Your task to perform on an android device: Open Youtube and go to the subscriptions tab Image 0: 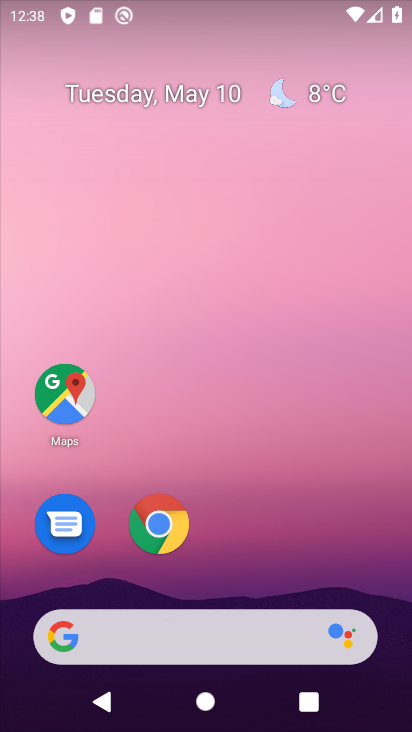
Step 0: drag from (279, 518) to (255, 0)
Your task to perform on an android device: Open Youtube and go to the subscriptions tab Image 1: 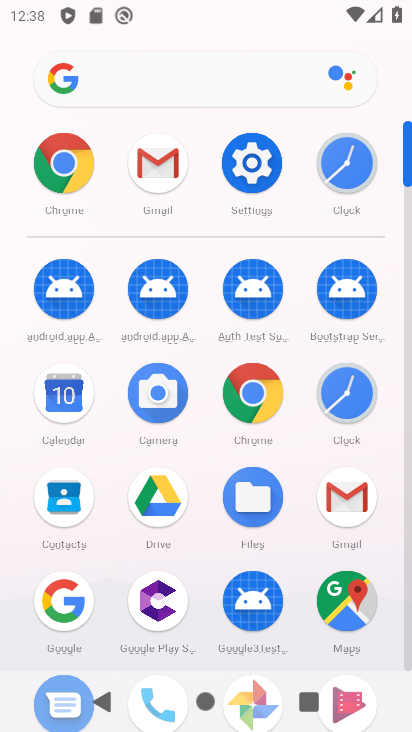
Step 1: drag from (299, 464) to (283, 149)
Your task to perform on an android device: Open Youtube and go to the subscriptions tab Image 2: 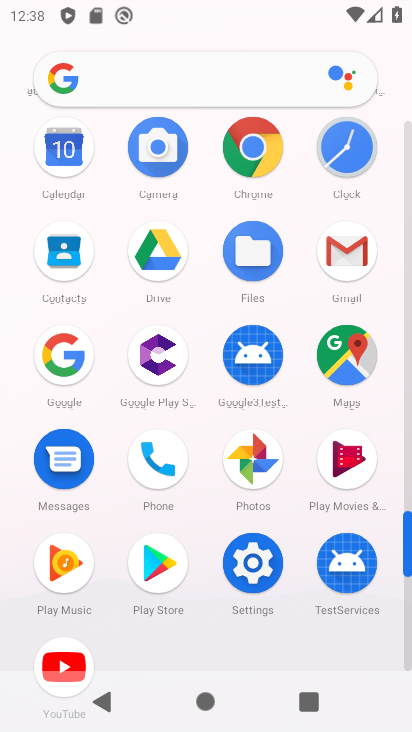
Step 2: click (63, 649)
Your task to perform on an android device: Open Youtube and go to the subscriptions tab Image 3: 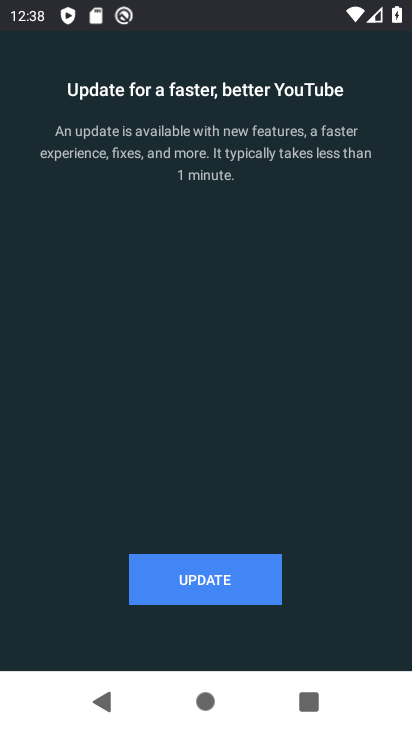
Step 3: click (207, 583)
Your task to perform on an android device: Open Youtube and go to the subscriptions tab Image 4: 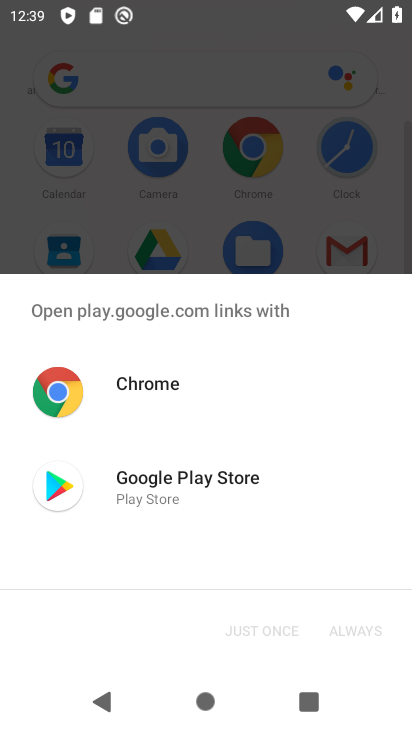
Step 4: click (141, 475)
Your task to perform on an android device: Open Youtube and go to the subscriptions tab Image 5: 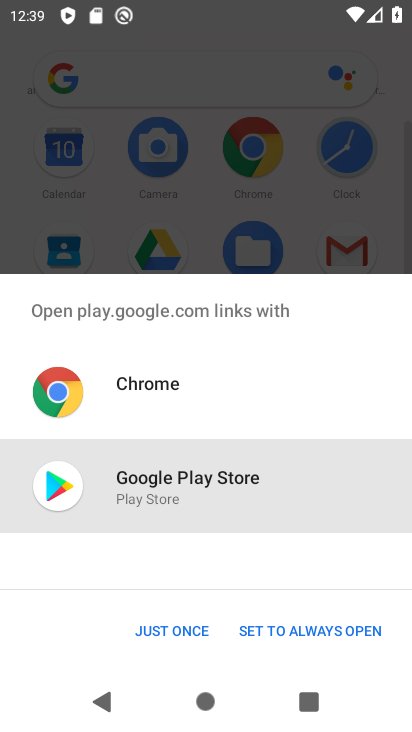
Step 5: click (170, 624)
Your task to perform on an android device: Open Youtube and go to the subscriptions tab Image 6: 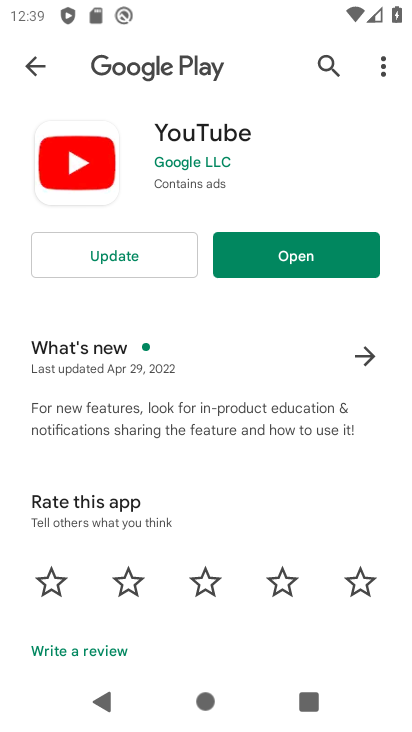
Step 6: click (298, 256)
Your task to perform on an android device: Open Youtube and go to the subscriptions tab Image 7: 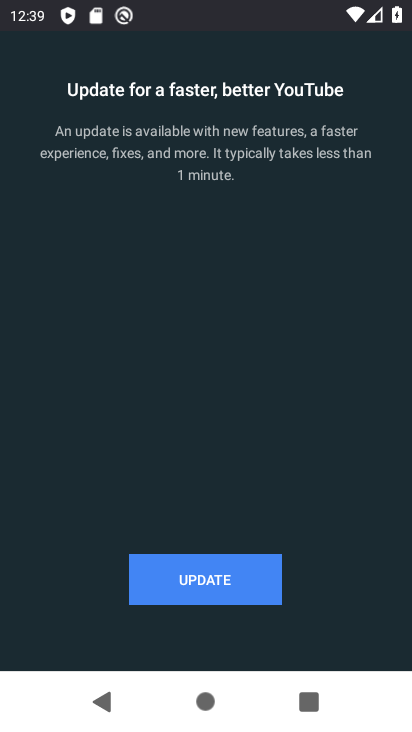
Step 7: click (234, 584)
Your task to perform on an android device: Open Youtube and go to the subscriptions tab Image 8: 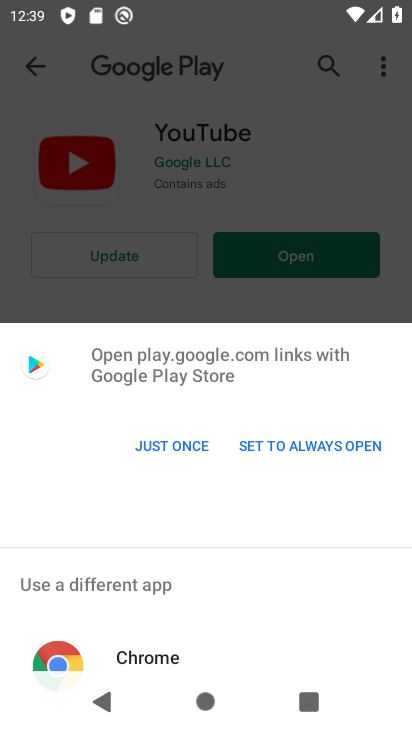
Step 8: click (183, 438)
Your task to perform on an android device: Open Youtube and go to the subscriptions tab Image 9: 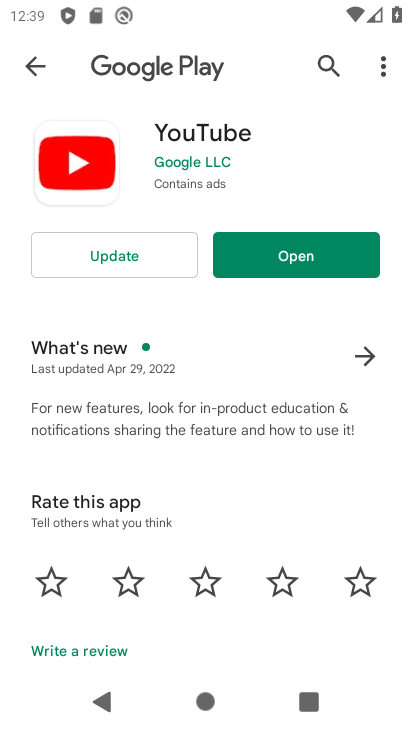
Step 9: click (146, 249)
Your task to perform on an android device: Open Youtube and go to the subscriptions tab Image 10: 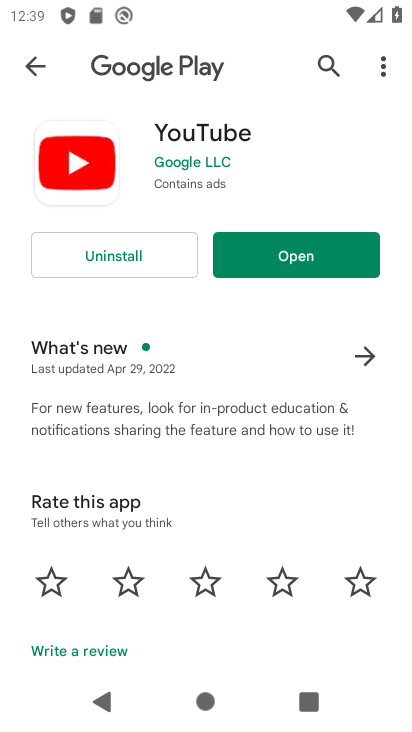
Step 10: click (280, 249)
Your task to perform on an android device: Open Youtube and go to the subscriptions tab Image 11: 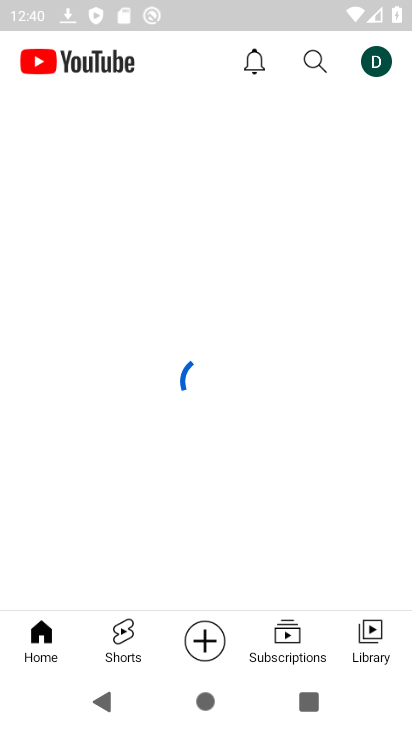
Step 11: click (260, 640)
Your task to perform on an android device: Open Youtube and go to the subscriptions tab Image 12: 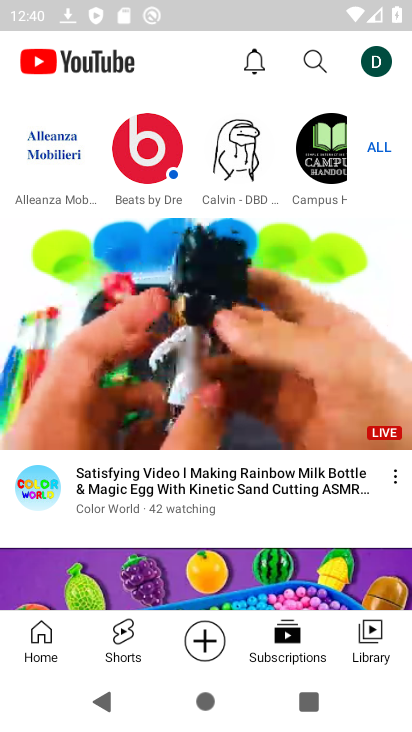
Step 12: click (282, 636)
Your task to perform on an android device: Open Youtube and go to the subscriptions tab Image 13: 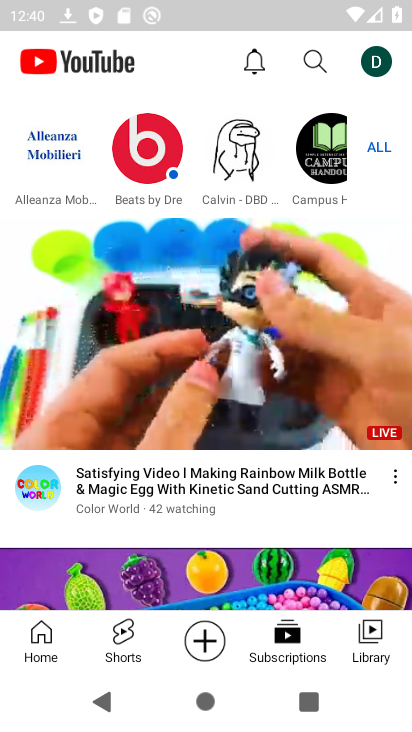
Step 13: task complete